Your task to perform on an android device: Open accessibility settings Image 0: 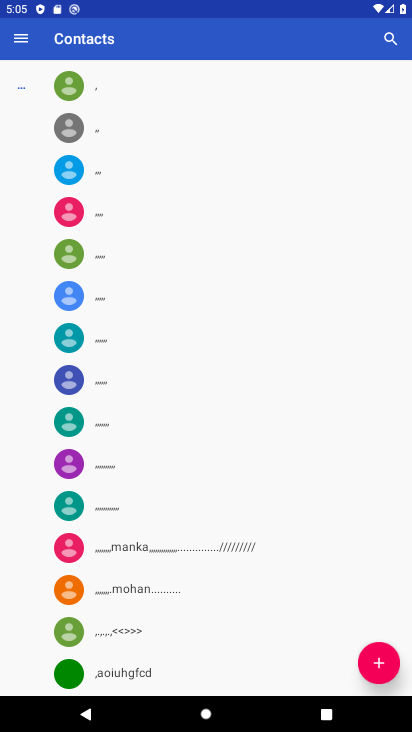
Step 0: press back button
Your task to perform on an android device: Open accessibility settings Image 1: 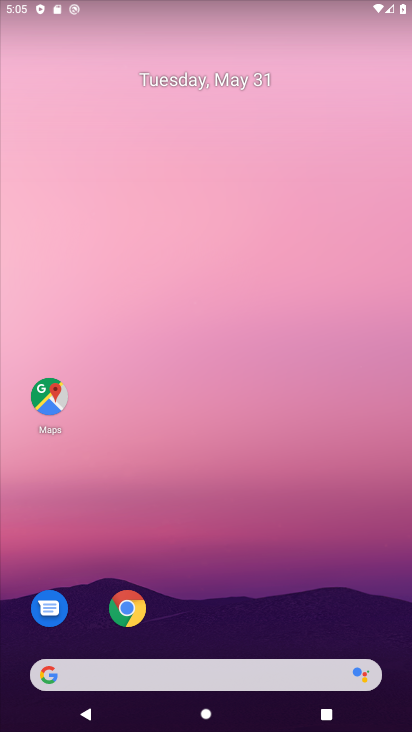
Step 1: drag from (228, 600) to (223, 31)
Your task to perform on an android device: Open accessibility settings Image 2: 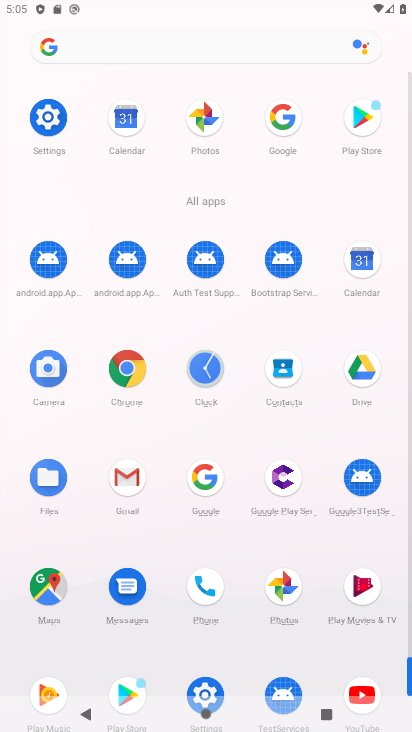
Step 2: click (47, 116)
Your task to perform on an android device: Open accessibility settings Image 3: 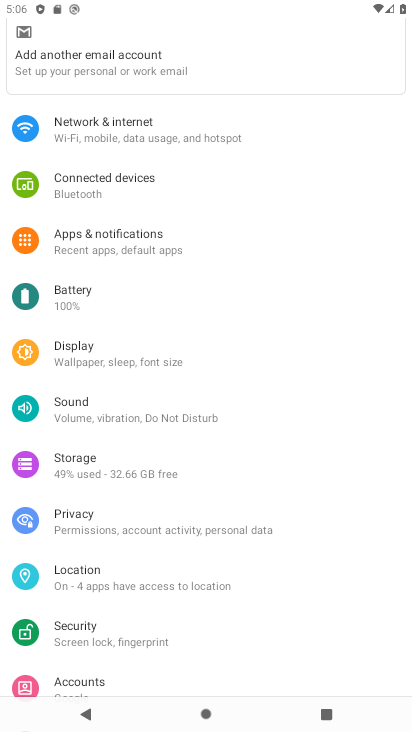
Step 3: drag from (107, 510) to (183, 426)
Your task to perform on an android device: Open accessibility settings Image 4: 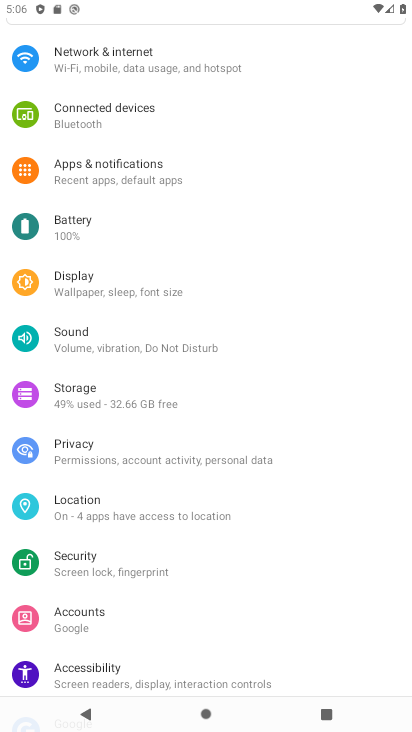
Step 4: drag from (101, 531) to (156, 473)
Your task to perform on an android device: Open accessibility settings Image 5: 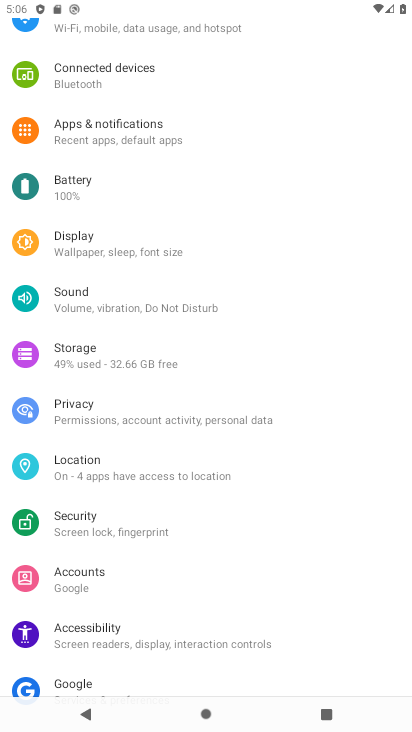
Step 5: drag from (111, 561) to (168, 492)
Your task to perform on an android device: Open accessibility settings Image 6: 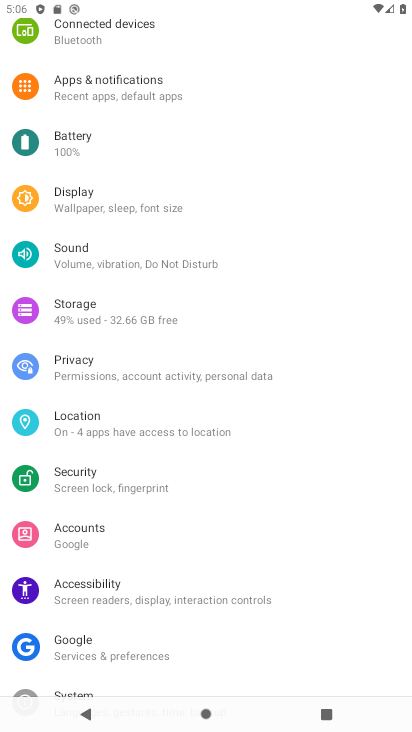
Step 6: click (112, 597)
Your task to perform on an android device: Open accessibility settings Image 7: 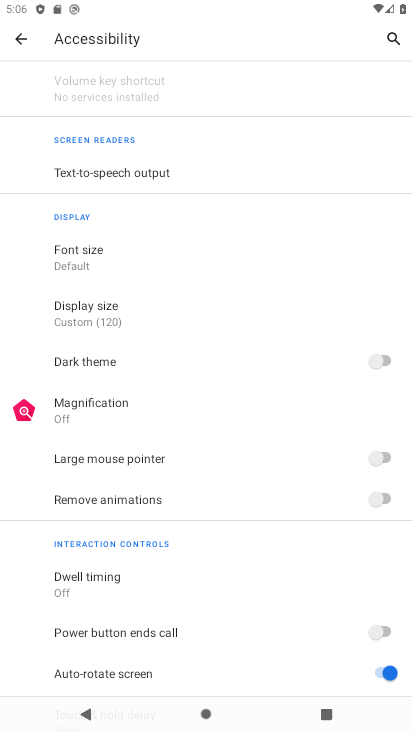
Step 7: task complete